Your task to perform on an android device: open app "LiveIn - Share Your Moment" (install if not already installed) and enter user name: "certifies@gmail.com" and password: "compartmented" Image 0: 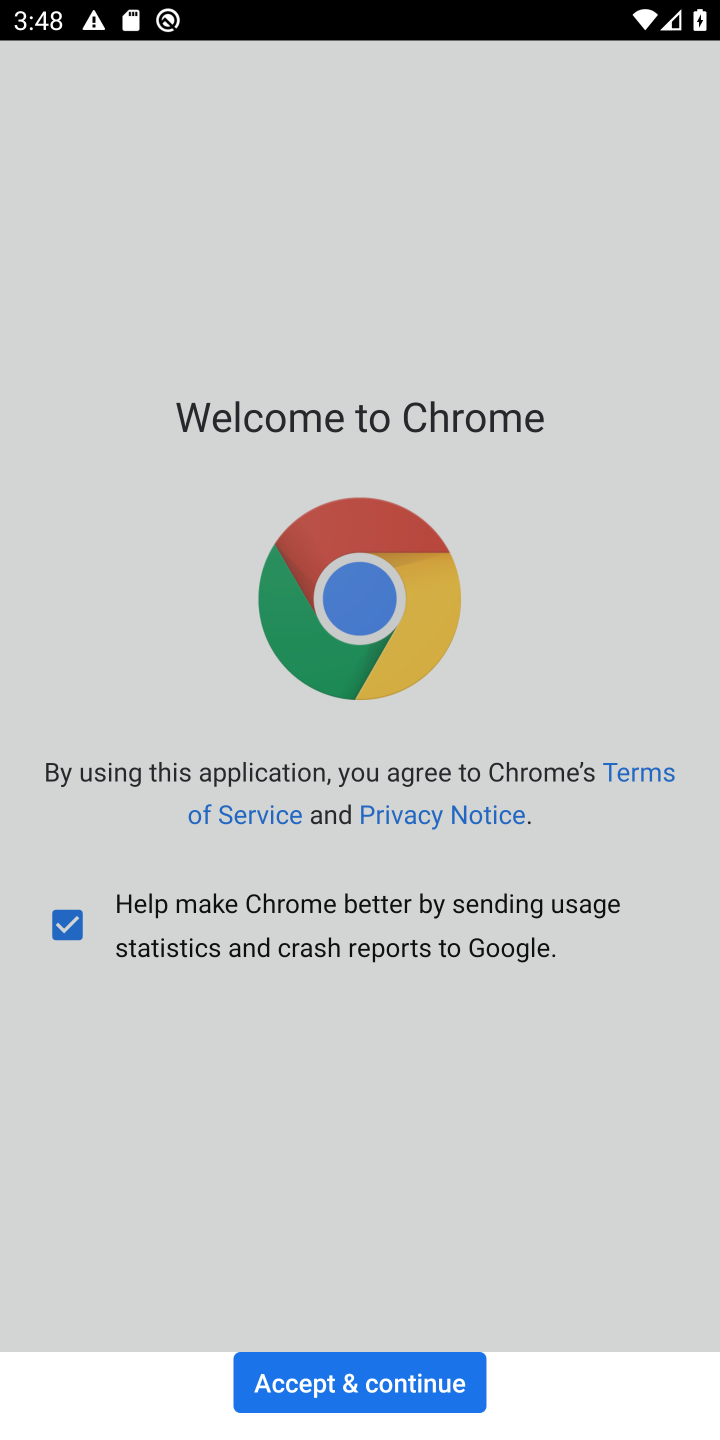
Step 0: press home button
Your task to perform on an android device: open app "LiveIn - Share Your Moment" (install if not already installed) and enter user name: "certifies@gmail.com" and password: "compartmented" Image 1: 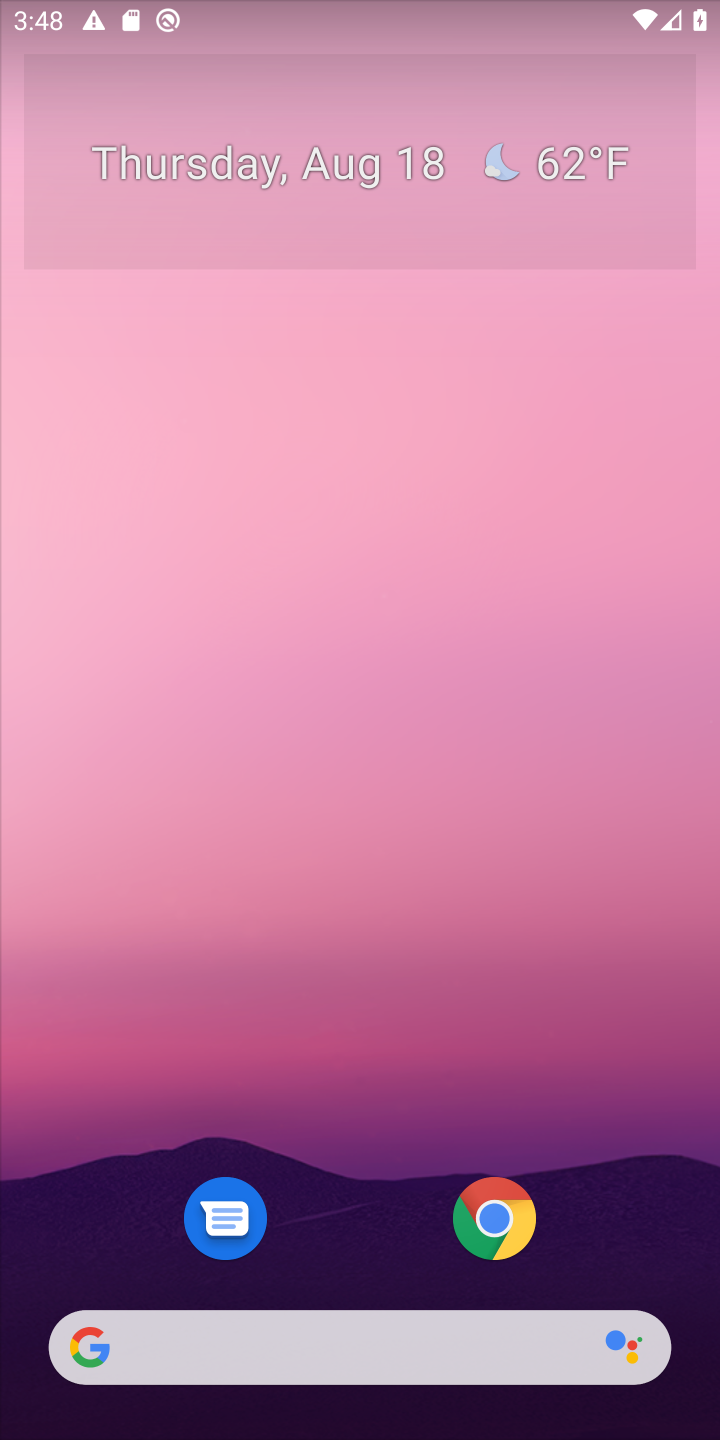
Step 1: drag from (291, 611) to (272, 392)
Your task to perform on an android device: open app "LiveIn - Share Your Moment" (install if not already installed) and enter user name: "certifies@gmail.com" and password: "compartmented" Image 2: 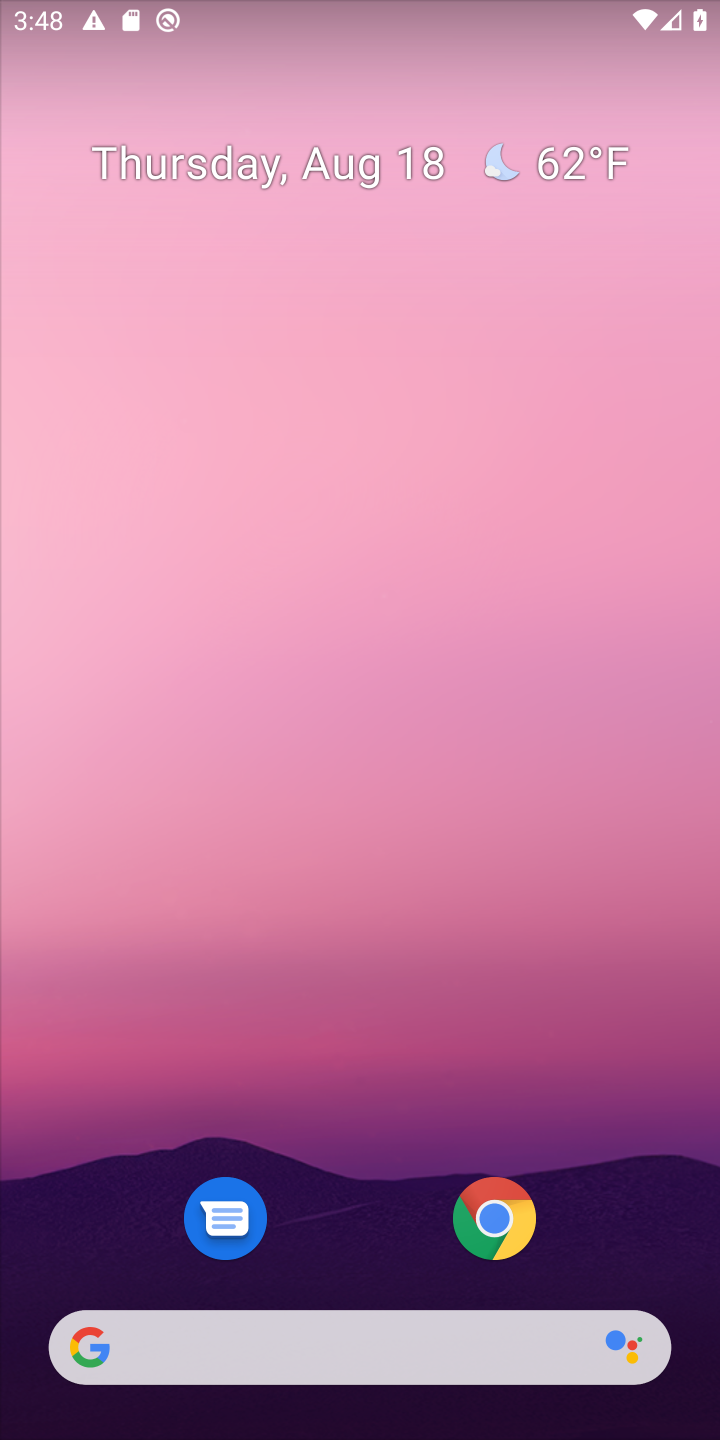
Step 2: drag from (301, 1132) to (306, 391)
Your task to perform on an android device: open app "LiveIn - Share Your Moment" (install if not already installed) and enter user name: "certifies@gmail.com" and password: "compartmented" Image 3: 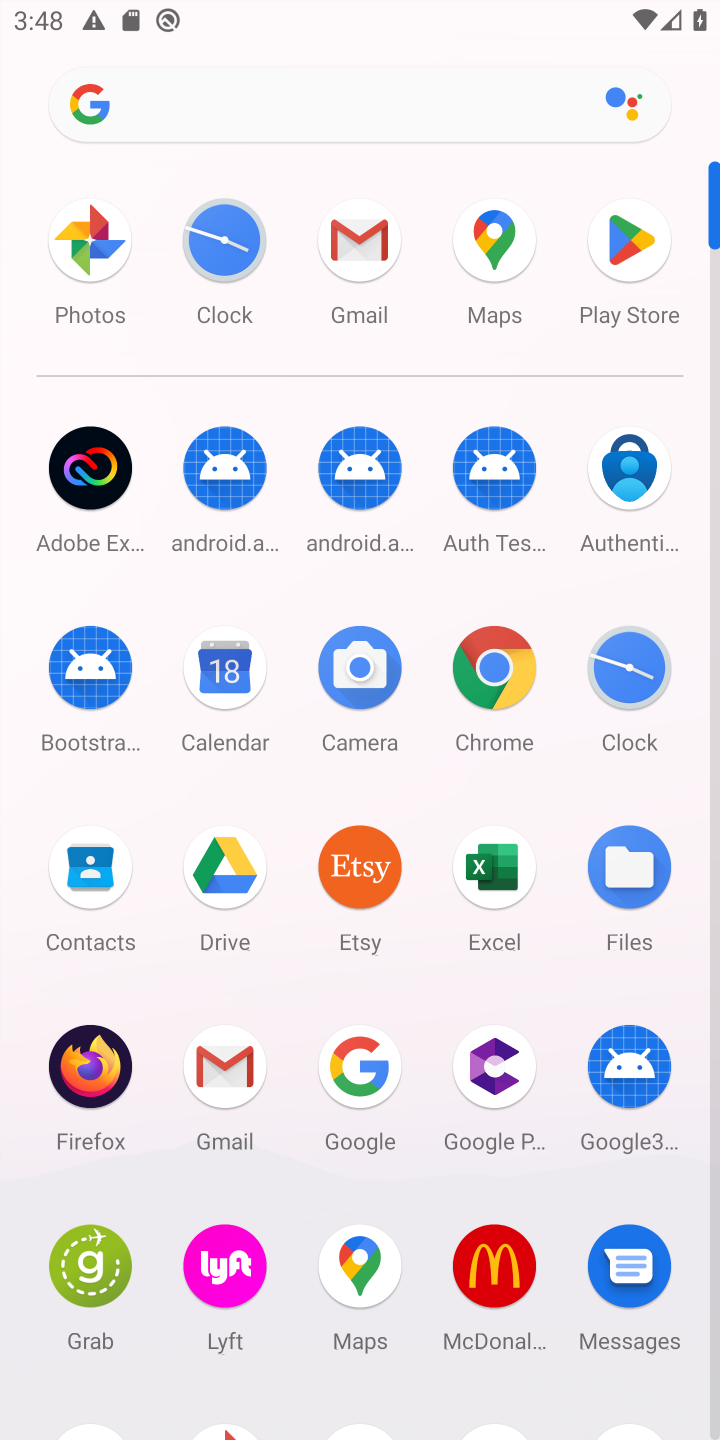
Step 3: click (605, 241)
Your task to perform on an android device: open app "LiveIn - Share Your Moment" (install if not already installed) and enter user name: "certifies@gmail.com" and password: "compartmented" Image 4: 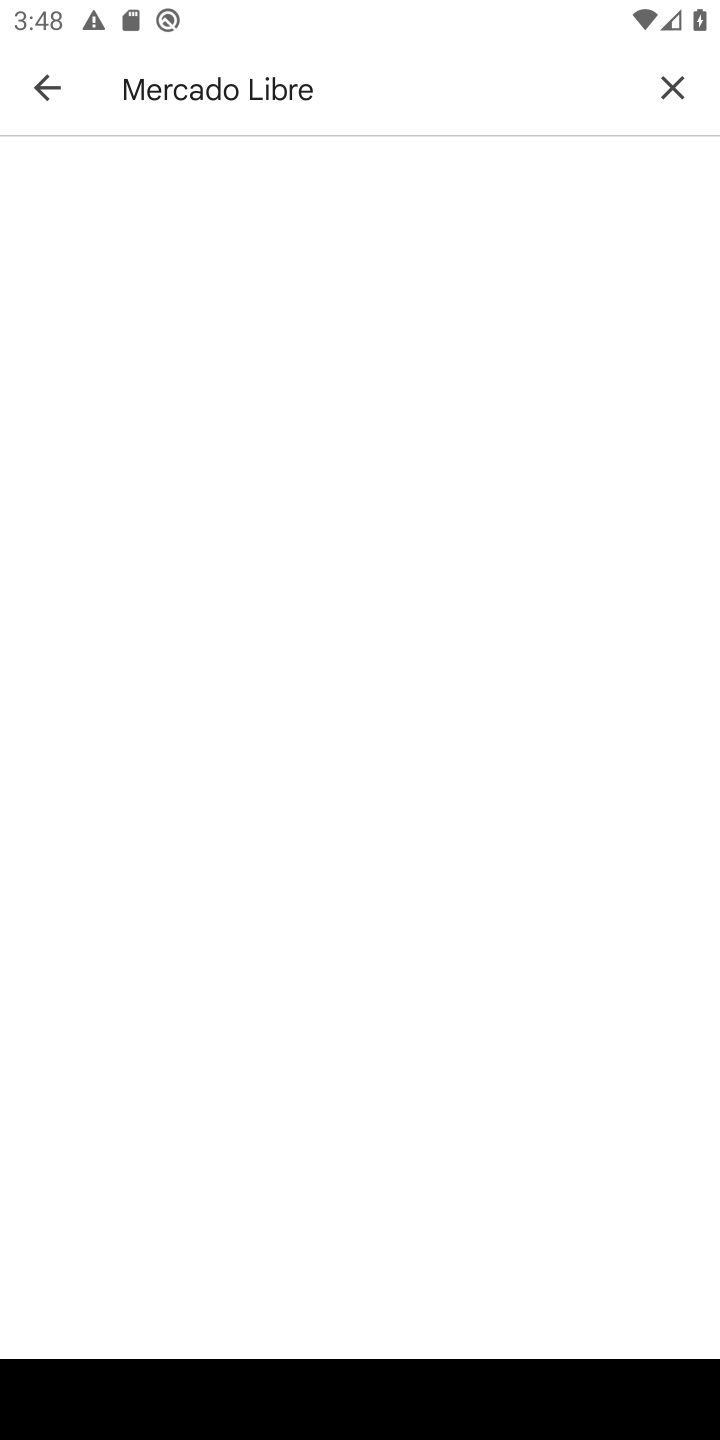
Step 4: click (683, 78)
Your task to perform on an android device: open app "LiveIn - Share Your Moment" (install if not already installed) and enter user name: "certifies@gmail.com" and password: "compartmented" Image 5: 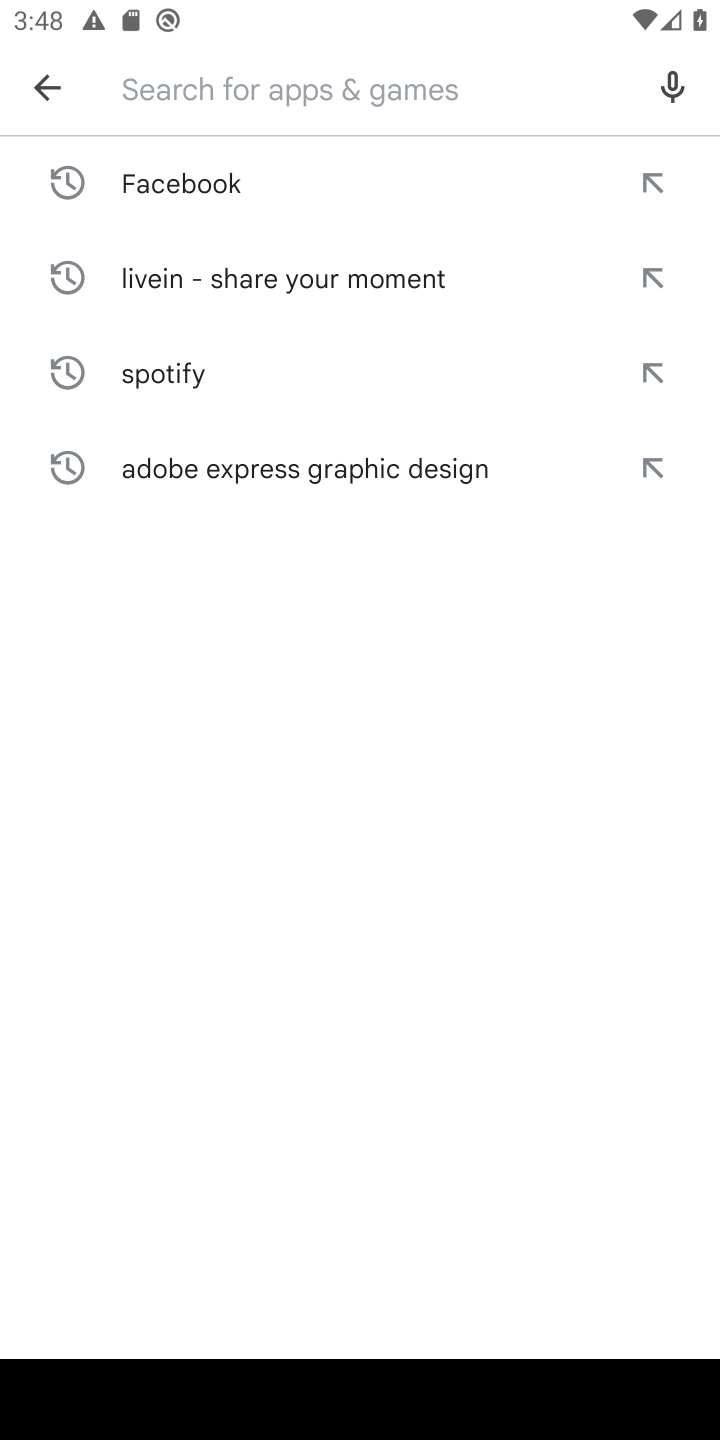
Step 5: click (266, 87)
Your task to perform on an android device: open app "LiveIn - Share Your Moment" (install if not already installed) and enter user name: "certifies@gmail.com" and password: "compartmented" Image 6: 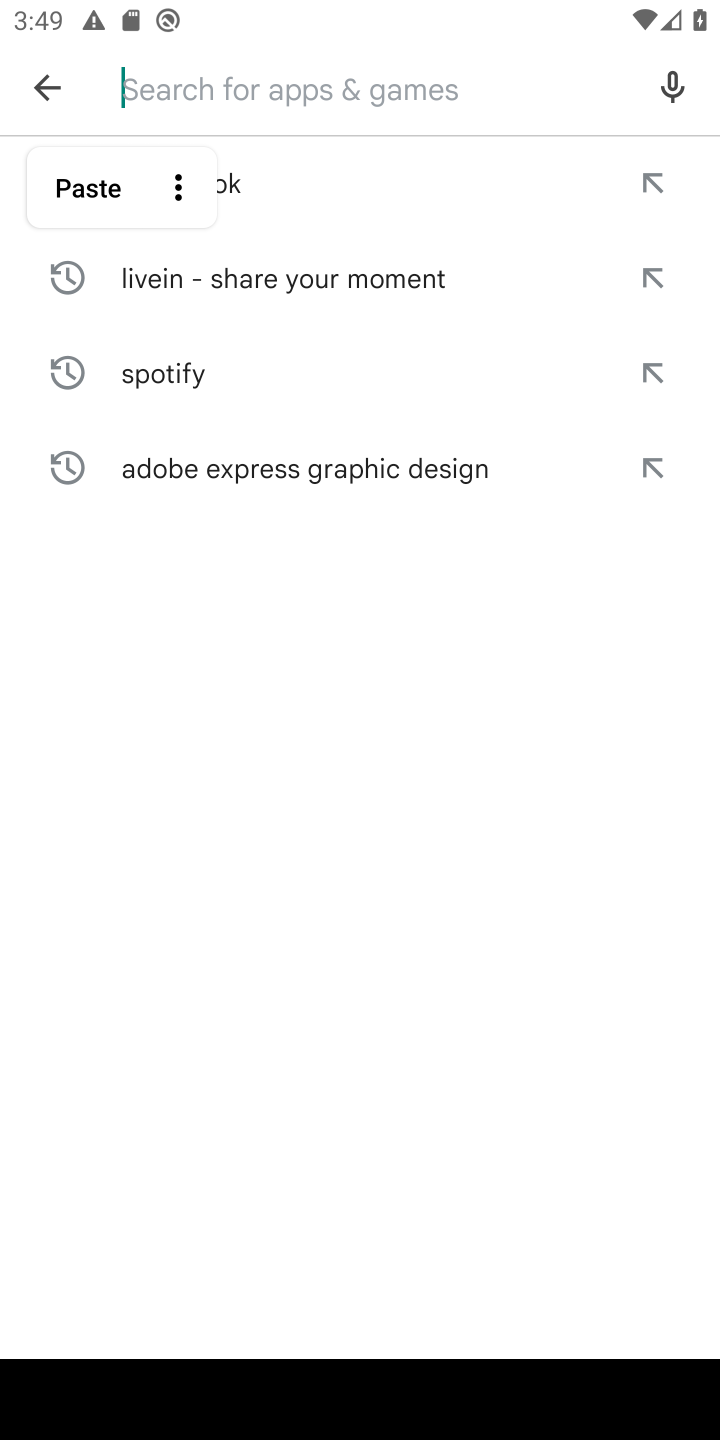
Step 6: type "LiveIn - Share Your Moment"
Your task to perform on an android device: open app "LiveIn - Share Your Moment" (install if not already installed) and enter user name: "certifies@gmail.com" and password: "compartmented" Image 7: 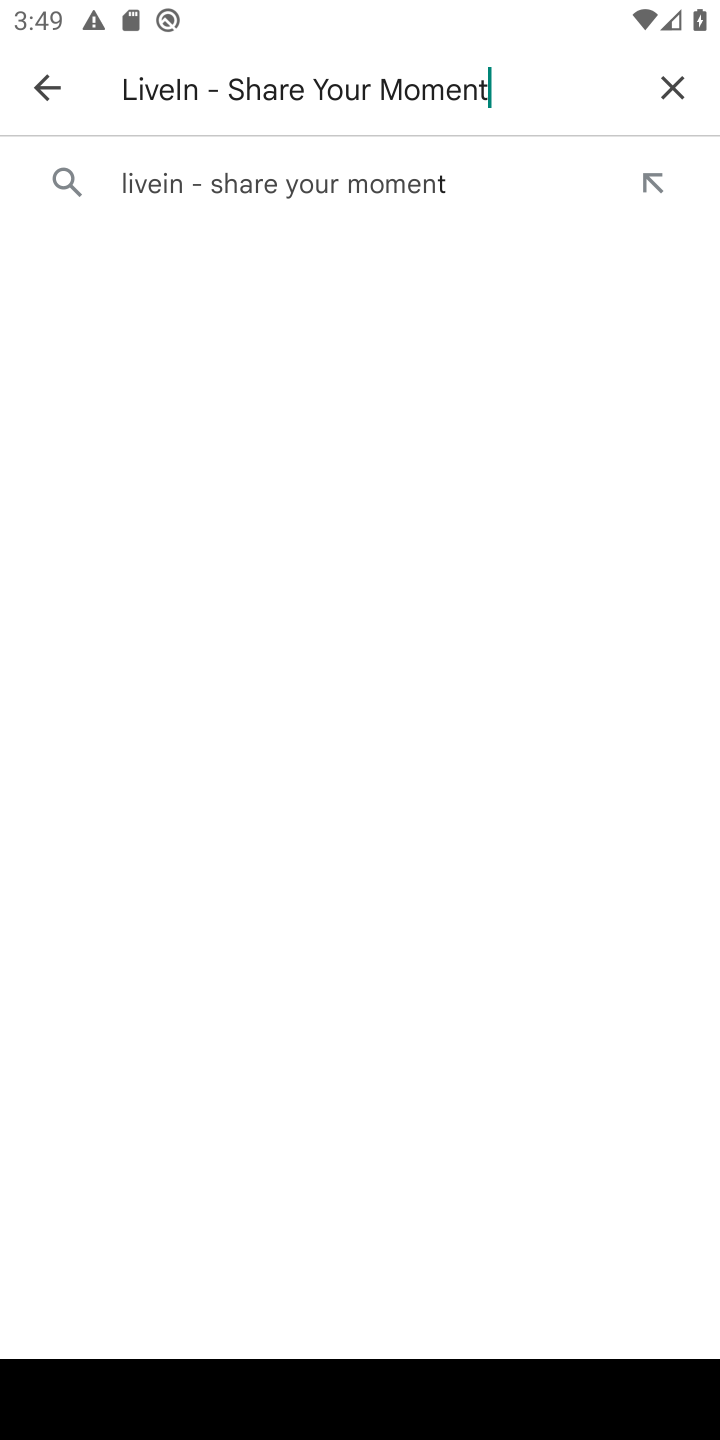
Step 7: type ""
Your task to perform on an android device: open app "LiveIn - Share Your Moment" (install if not already installed) and enter user name: "certifies@gmail.com" and password: "compartmented" Image 8: 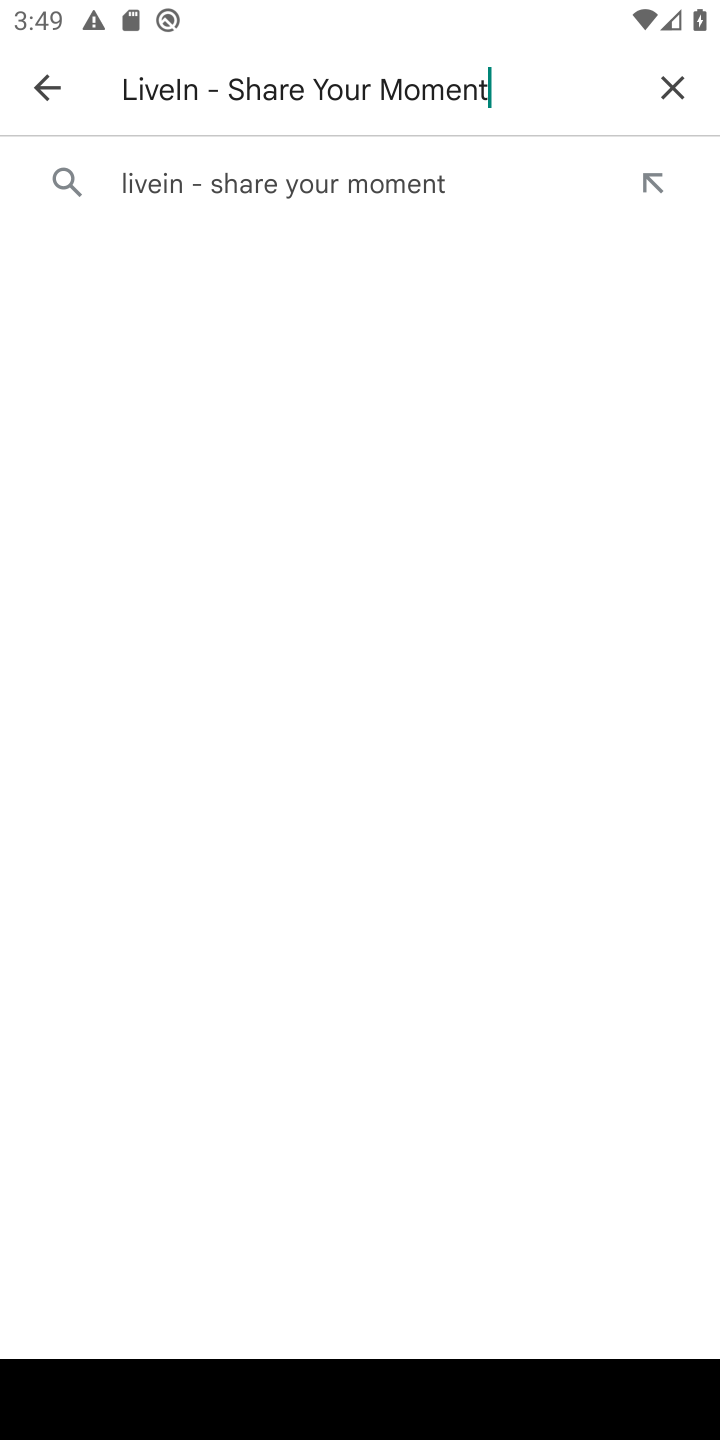
Step 8: click (214, 193)
Your task to perform on an android device: open app "LiveIn - Share Your Moment" (install if not already installed) and enter user name: "certifies@gmail.com" and password: "compartmented" Image 9: 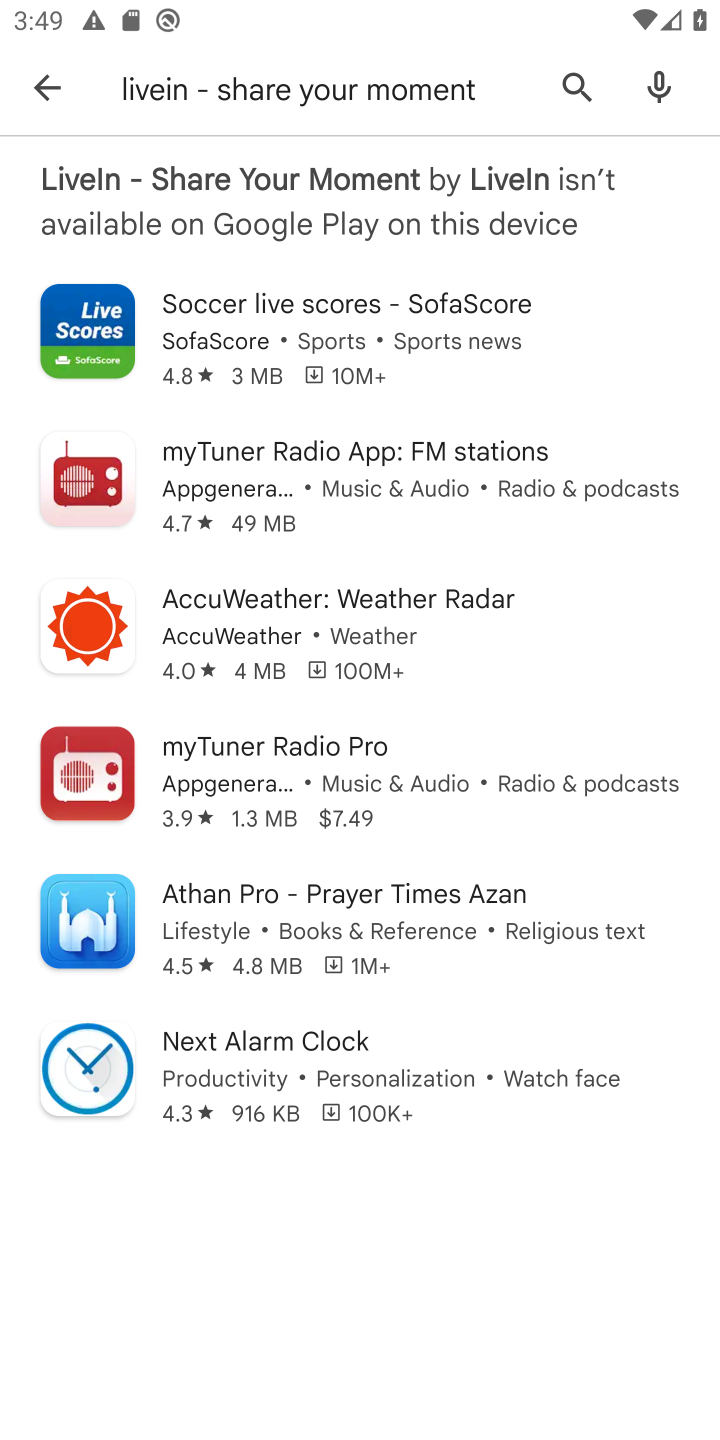
Step 9: task complete